Your task to perform on an android device: find photos in the google photos app Image 0: 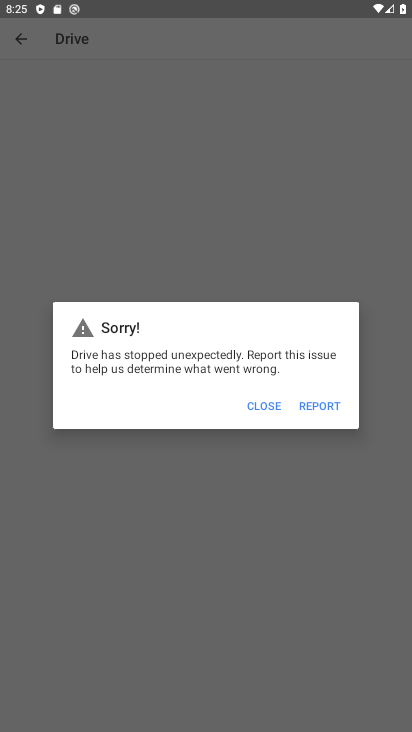
Step 0: press home button
Your task to perform on an android device: find photos in the google photos app Image 1: 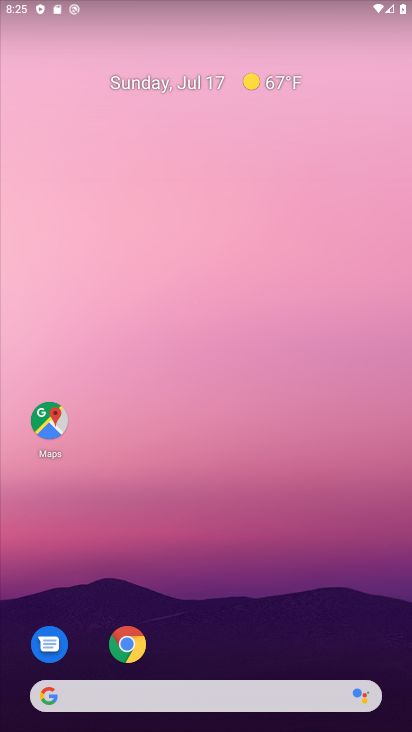
Step 1: click (221, 227)
Your task to perform on an android device: find photos in the google photos app Image 2: 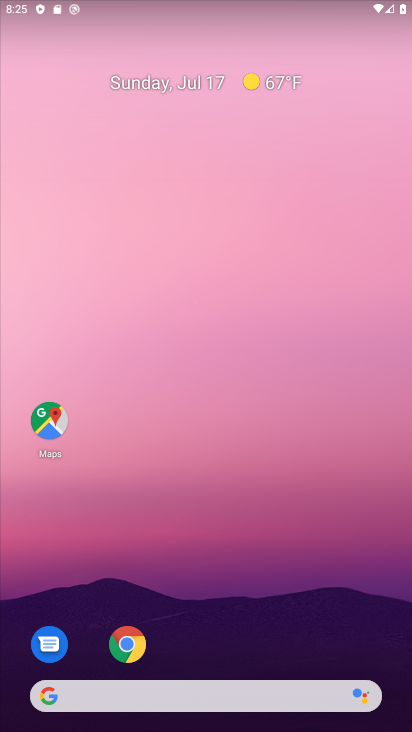
Step 2: drag from (197, 612) to (171, 139)
Your task to perform on an android device: find photos in the google photos app Image 3: 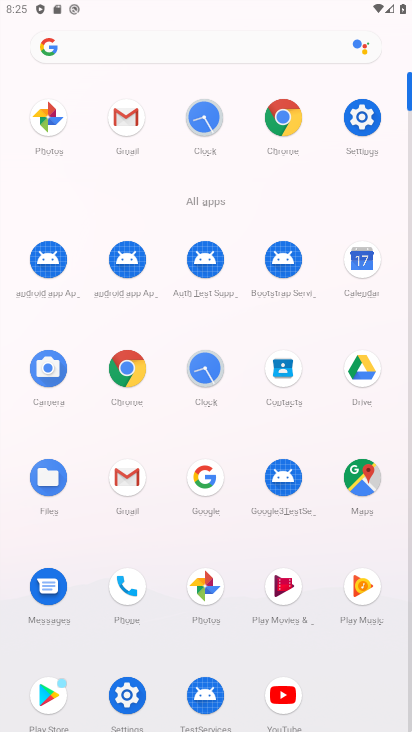
Step 3: click (44, 113)
Your task to perform on an android device: find photos in the google photos app Image 4: 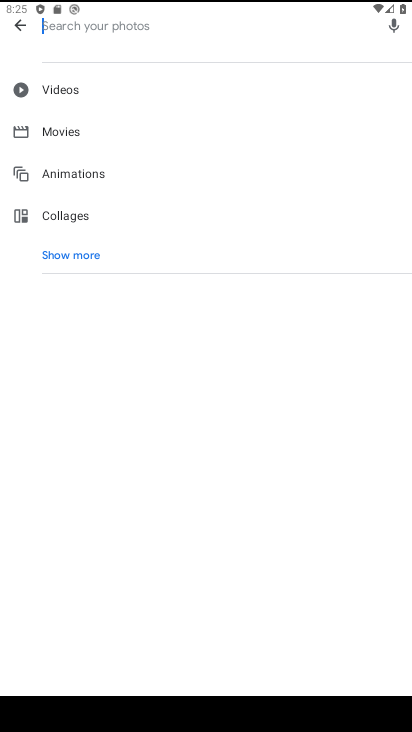
Step 4: click (120, 21)
Your task to perform on an android device: find photos in the google photos app Image 5: 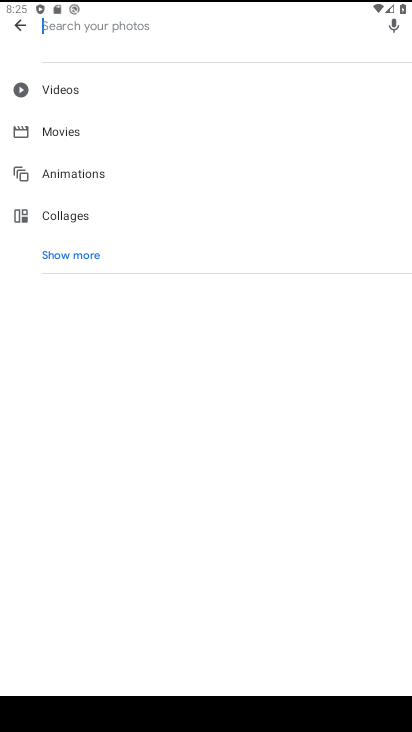
Step 5: task complete